Your task to perform on an android device: Turn on the flashlight Image 0: 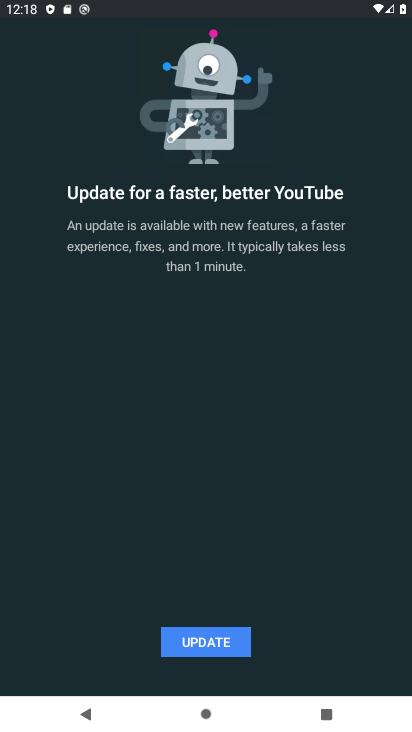
Step 0: press home button
Your task to perform on an android device: Turn on the flashlight Image 1: 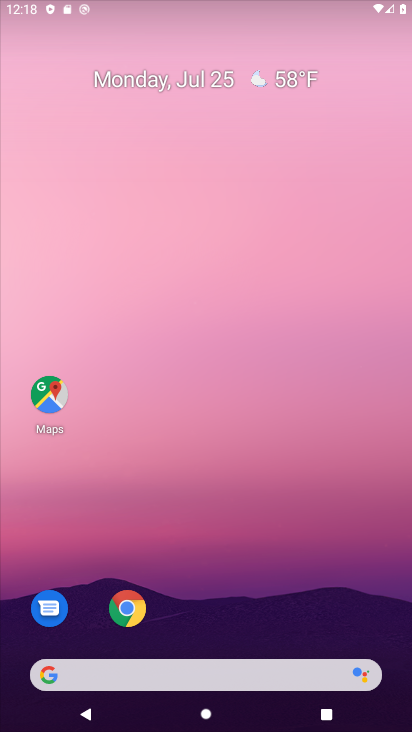
Step 1: drag from (348, 547) to (251, 88)
Your task to perform on an android device: Turn on the flashlight Image 2: 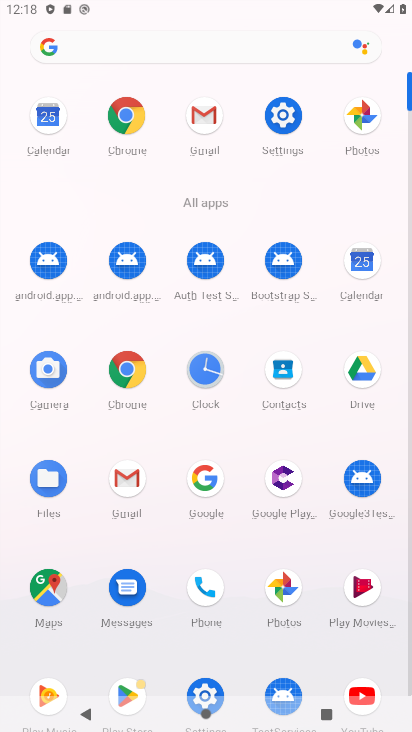
Step 2: click (276, 122)
Your task to perform on an android device: Turn on the flashlight Image 3: 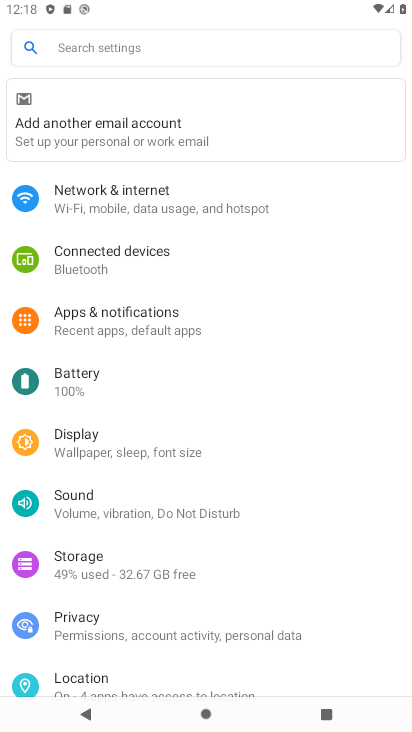
Step 3: click (123, 453)
Your task to perform on an android device: Turn on the flashlight Image 4: 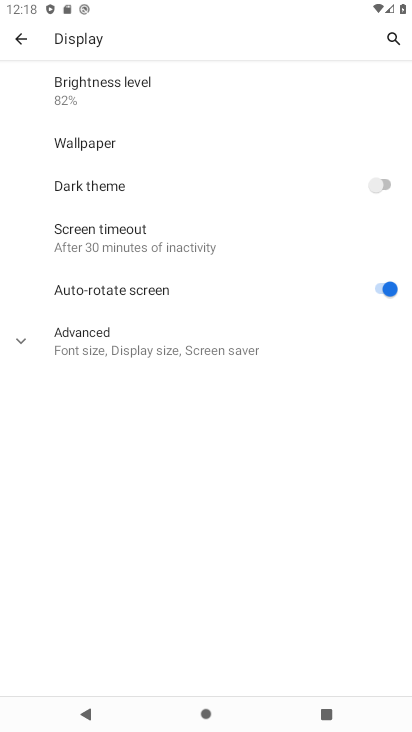
Step 4: task complete